Your task to perform on an android device: search for starred emails in the gmail app Image 0: 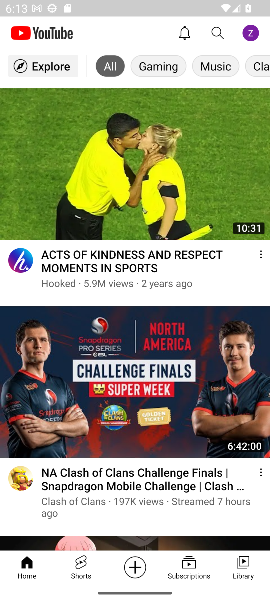
Step 0: press home button
Your task to perform on an android device: search for starred emails in the gmail app Image 1: 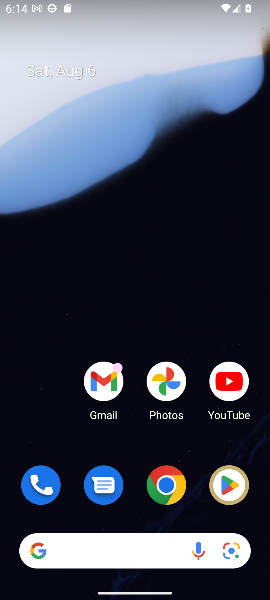
Step 1: click (99, 374)
Your task to perform on an android device: search for starred emails in the gmail app Image 2: 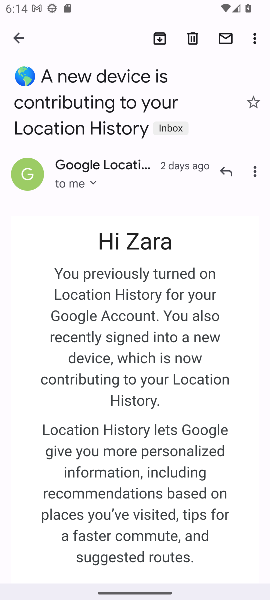
Step 2: click (21, 34)
Your task to perform on an android device: search for starred emails in the gmail app Image 3: 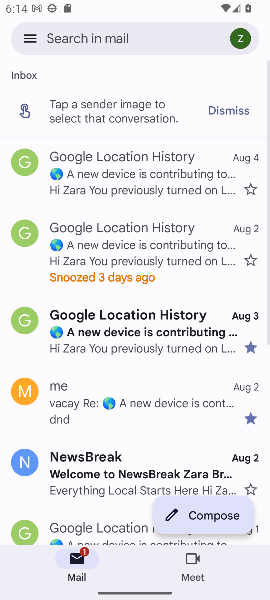
Step 3: click (27, 40)
Your task to perform on an android device: search for starred emails in the gmail app Image 4: 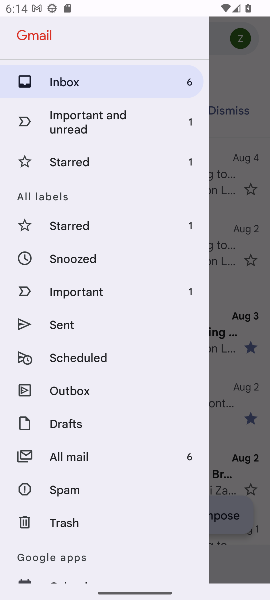
Step 4: click (79, 231)
Your task to perform on an android device: search for starred emails in the gmail app Image 5: 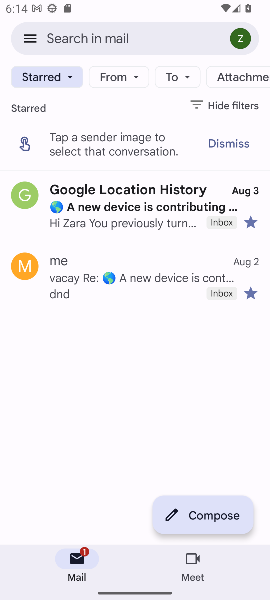
Step 5: task complete